Your task to perform on an android device: turn off priority inbox in the gmail app Image 0: 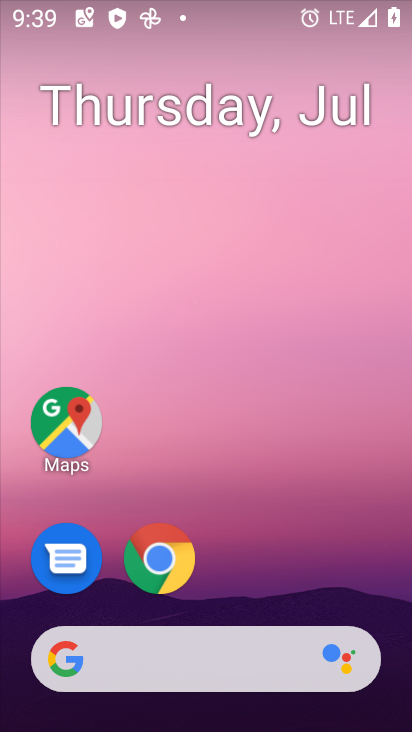
Step 0: drag from (351, 539) to (331, 120)
Your task to perform on an android device: turn off priority inbox in the gmail app Image 1: 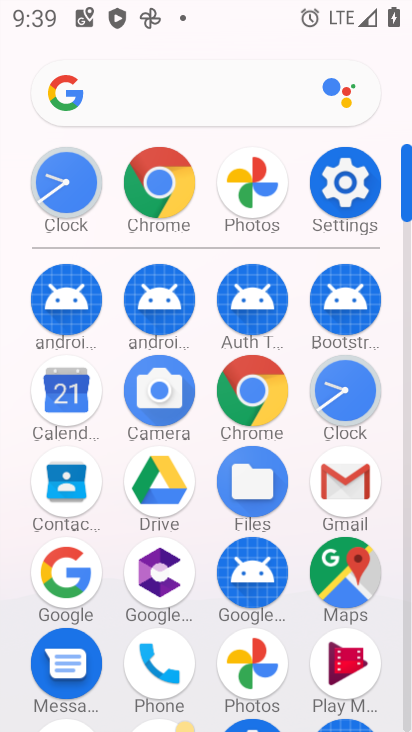
Step 1: click (355, 492)
Your task to perform on an android device: turn off priority inbox in the gmail app Image 2: 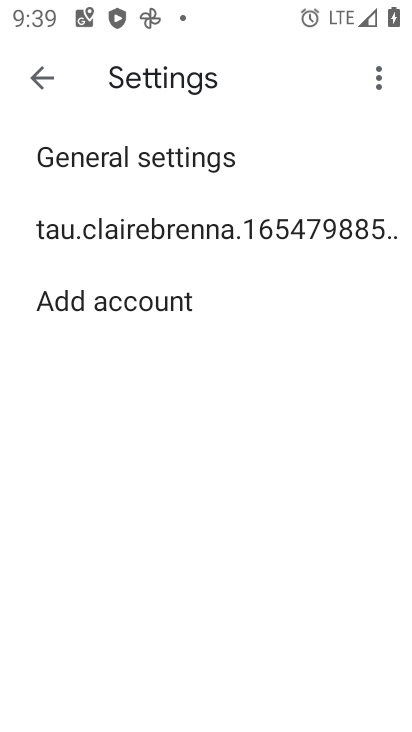
Step 2: click (307, 237)
Your task to perform on an android device: turn off priority inbox in the gmail app Image 3: 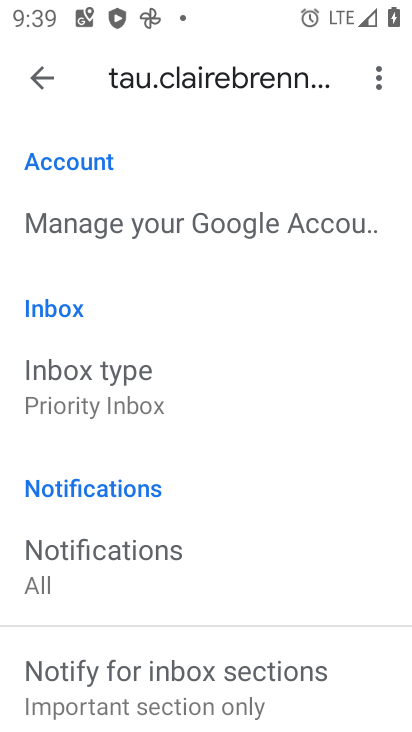
Step 3: drag from (328, 453) to (325, 363)
Your task to perform on an android device: turn off priority inbox in the gmail app Image 4: 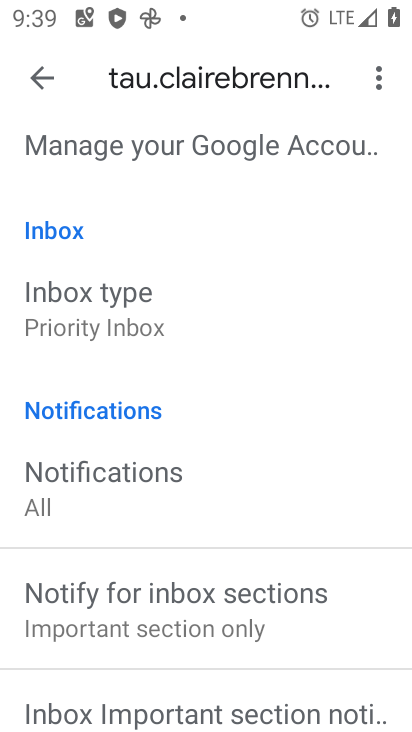
Step 4: drag from (318, 492) to (318, 386)
Your task to perform on an android device: turn off priority inbox in the gmail app Image 5: 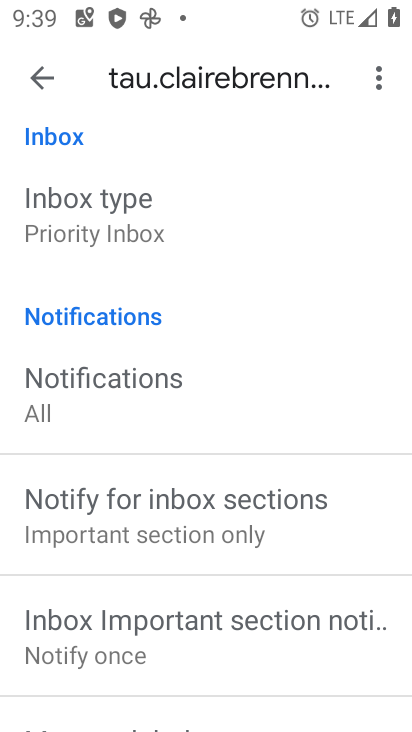
Step 5: drag from (341, 528) to (347, 302)
Your task to perform on an android device: turn off priority inbox in the gmail app Image 6: 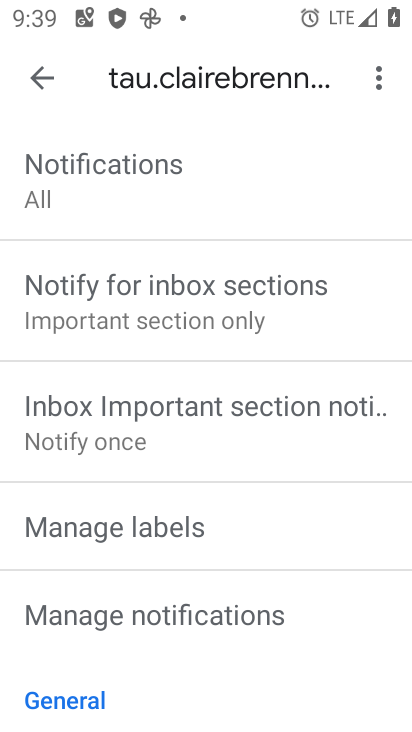
Step 6: drag from (354, 491) to (357, 332)
Your task to perform on an android device: turn off priority inbox in the gmail app Image 7: 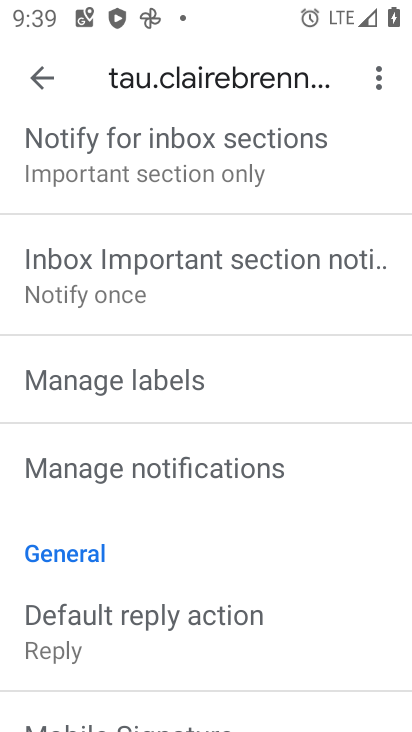
Step 7: drag from (356, 488) to (352, 382)
Your task to perform on an android device: turn off priority inbox in the gmail app Image 8: 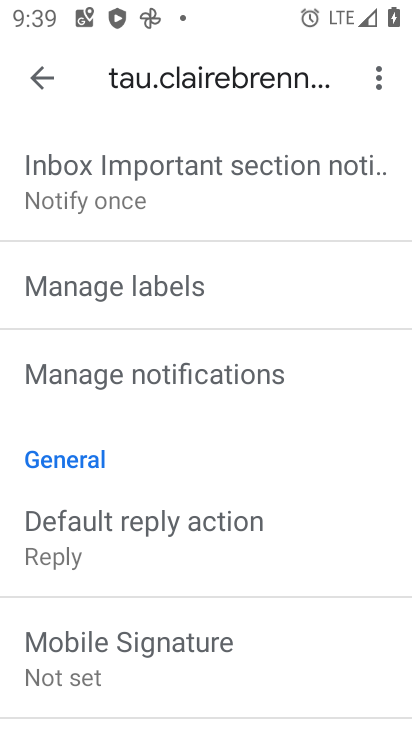
Step 8: drag from (334, 450) to (340, 372)
Your task to perform on an android device: turn off priority inbox in the gmail app Image 9: 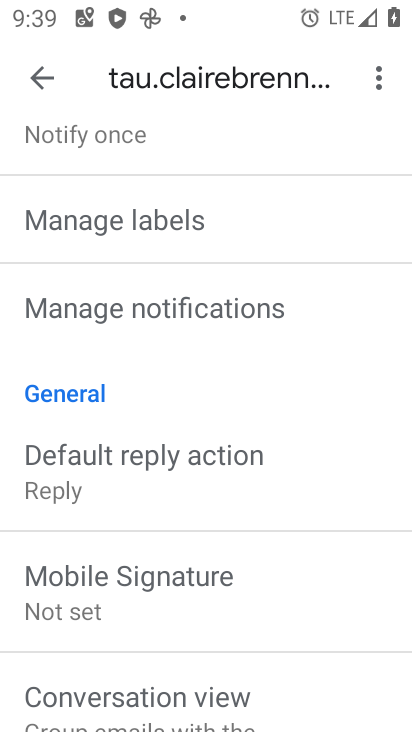
Step 9: drag from (342, 501) to (345, 384)
Your task to perform on an android device: turn off priority inbox in the gmail app Image 10: 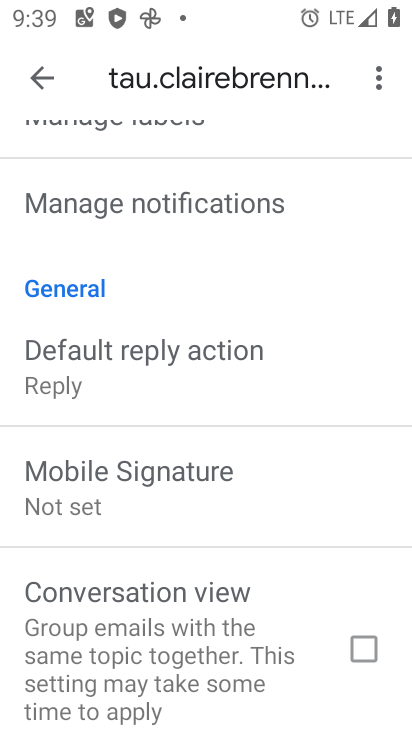
Step 10: drag from (326, 520) to (323, 412)
Your task to perform on an android device: turn off priority inbox in the gmail app Image 11: 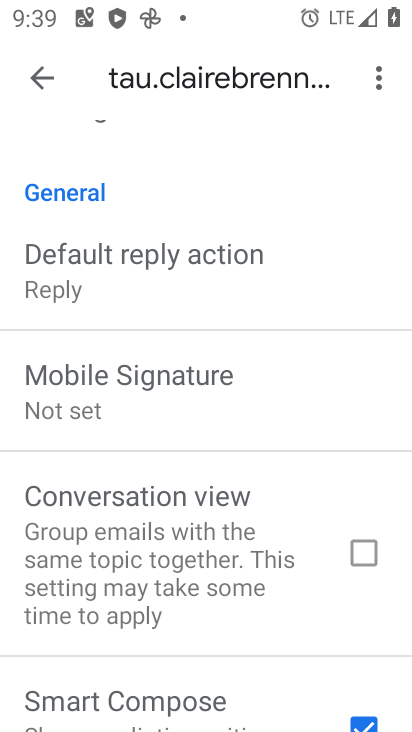
Step 11: drag from (322, 318) to (313, 455)
Your task to perform on an android device: turn off priority inbox in the gmail app Image 12: 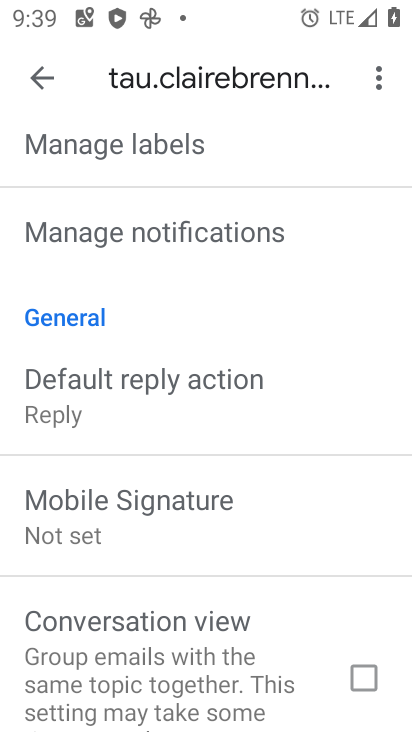
Step 12: drag from (318, 332) to (317, 450)
Your task to perform on an android device: turn off priority inbox in the gmail app Image 13: 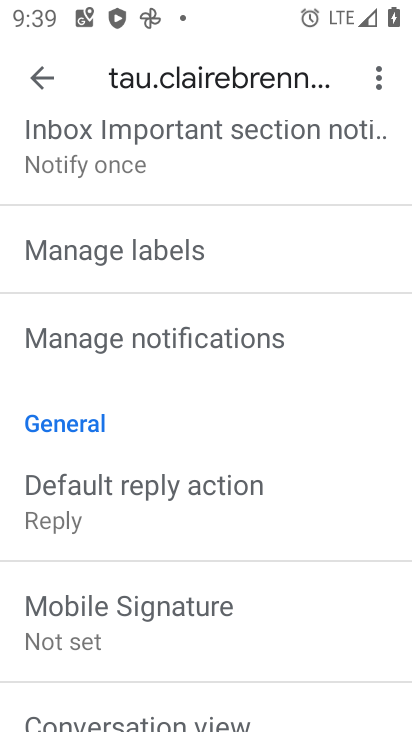
Step 13: drag from (338, 333) to (337, 442)
Your task to perform on an android device: turn off priority inbox in the gmail app Image 14: 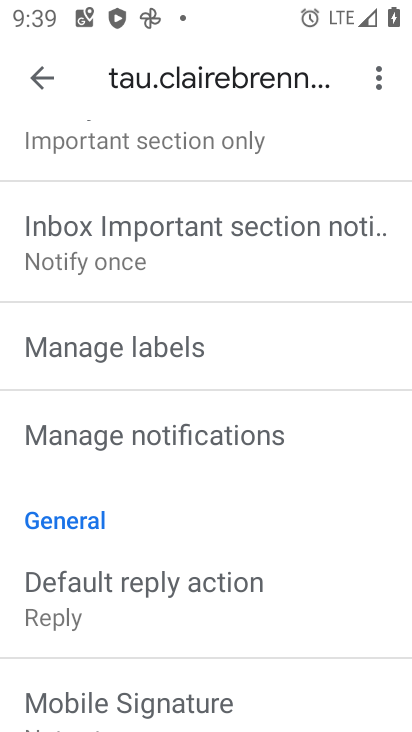
Step 14: drag from (337, 343) to (339, 470)
Your task to perform on an android device: turn off priority inbox in the gmail app Image 15: 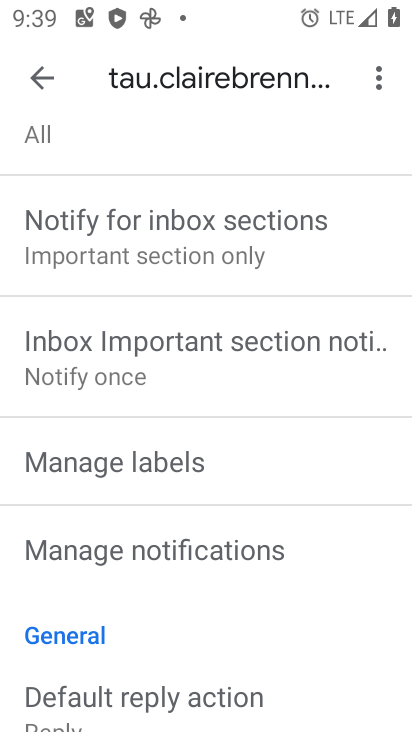
Step 15: drag from (345, 303) to (346, 439)
Your task to perform on an android device: turn off priority inbox in the gmail app Image 16: 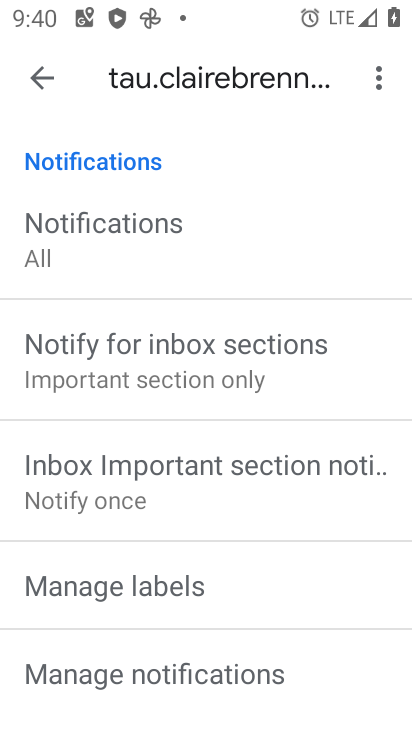
Step 16: drag from (342, 291) to (352, 432)
Your task to perform on an android device: turn off priority inbox in the gmail app Image 17: 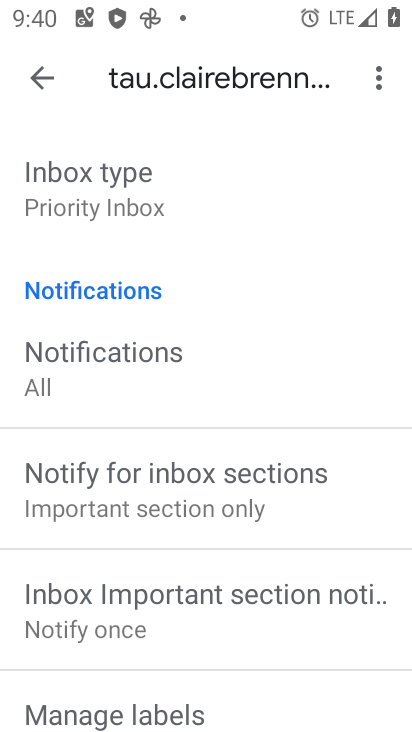
Step 17: drag from (353, 274) to (359, 453)
Your task to perform on an android device: turn off priority inbox in the gmail app Image 18: 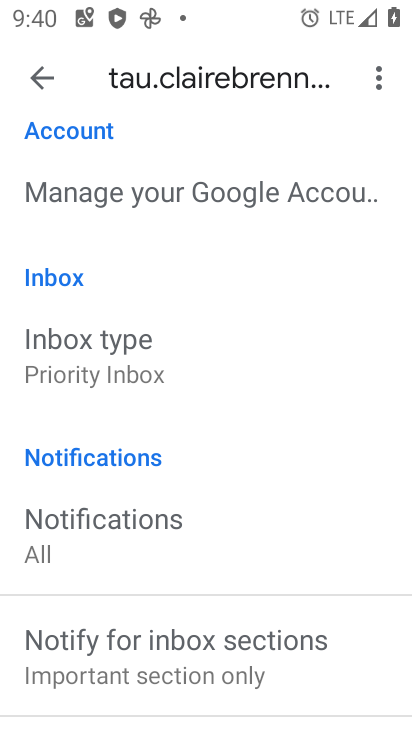
Step 18: click (182, 375)
Your task to perform on an android device: turn off priority inbox in the gmail app Image 19: 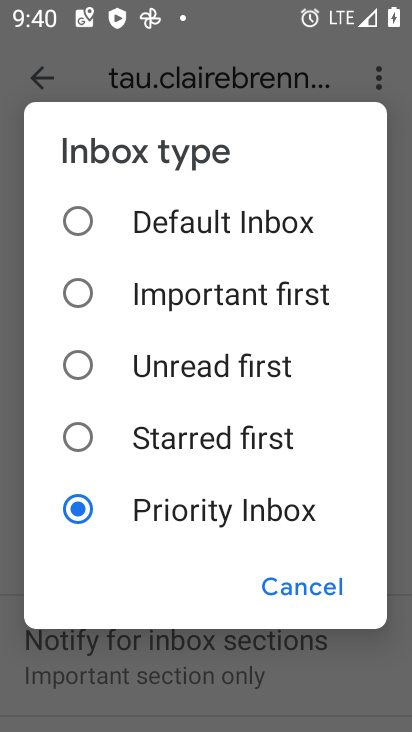
Step 19: click (224, 301)
Your task to perform on an android device: turn off priority inbox in the gmail app Image 20: 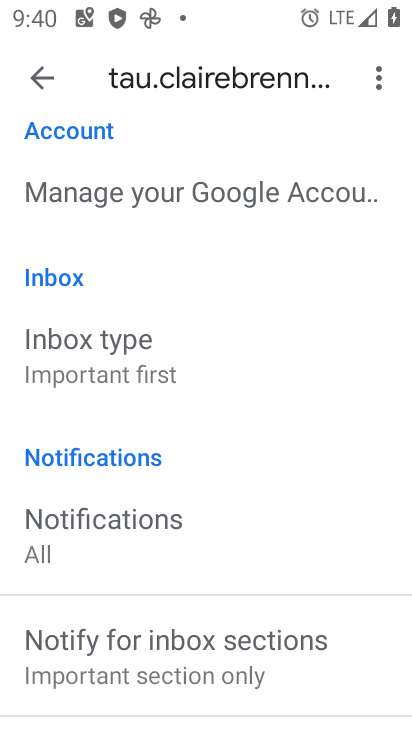
Step 20: task complete